Your task to perform on an android device: Open Google Image 0: 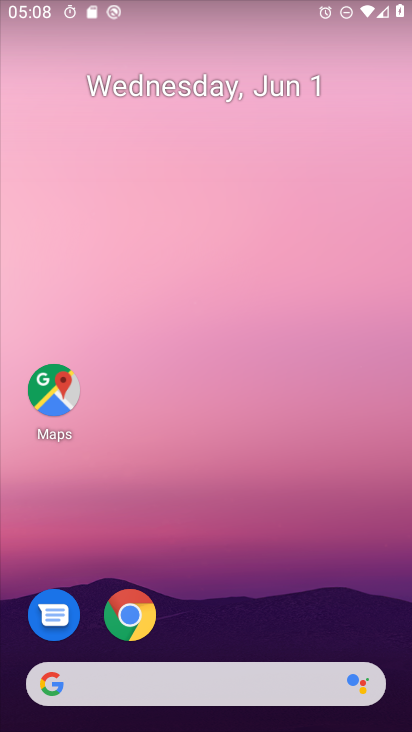
Step 0: drag from (166, 652) to (207, 193)
Your task to perform on an android device: Open Google Image 1: 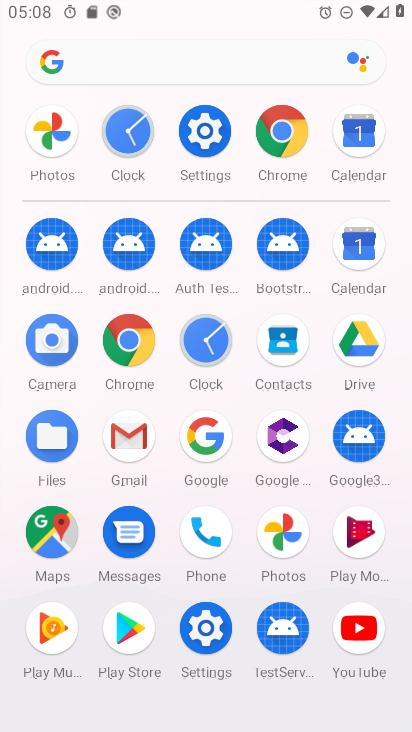
Step 1: click (121, 352)
Your task to perform on an android device: Open Google Image 2: 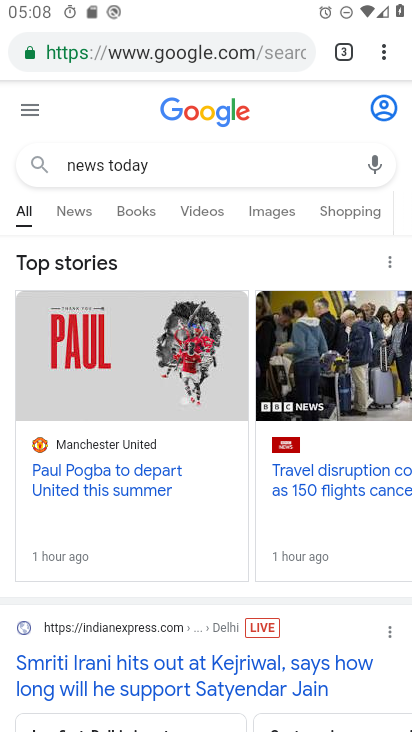
Step 2: task complete